Your task to perform on an android device: Go to wifi settings Image 0: 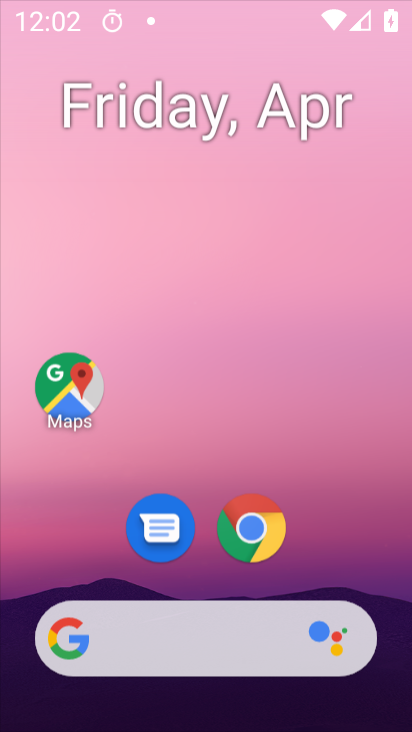
Step 0: click (335, 307)
Your task to perform on an android device: Go to wifi settings Image 1: 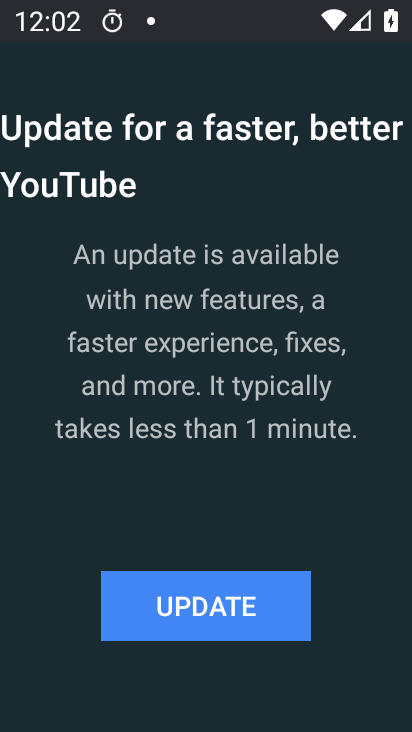
Step 1: press home button
Your task to perform on an android device: Go to wifi settings Image 2: 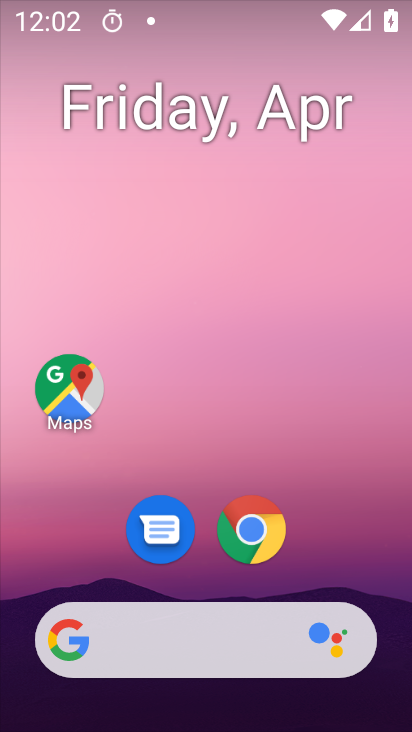
Step 2: drag from (205, 563) to (265, 80)
Your task to perform on an android device: Go to wifi settings Image 3: 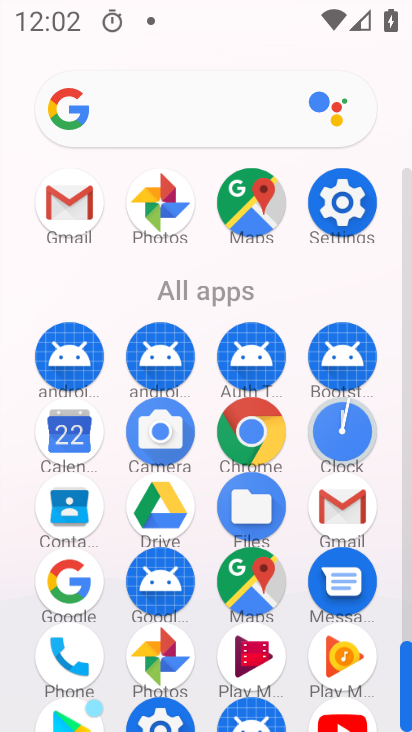
Step 3: click (367, 238)
Your task to perform on an android device: Go to wifi settings Image 4: 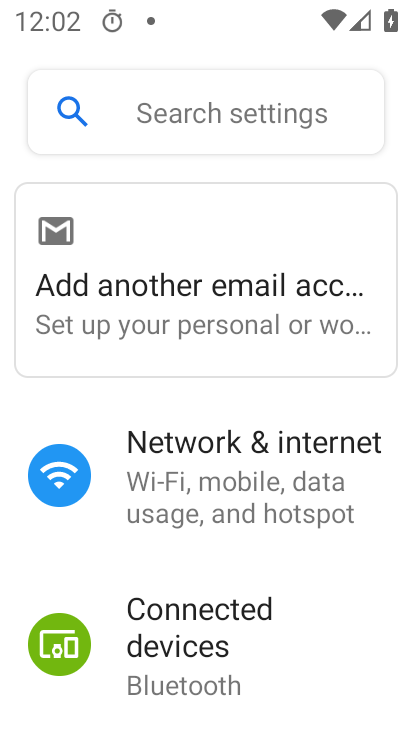
Step 4: click (229, 459)
Your task to perform on an android device: Go to wifi settings Image 5: 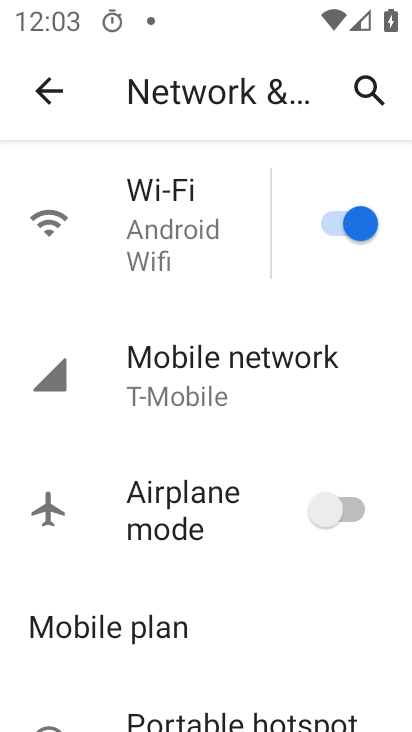
Step 5: click (144, 204)
Your task to perform on an android device: Go to wifi settings Image 6: 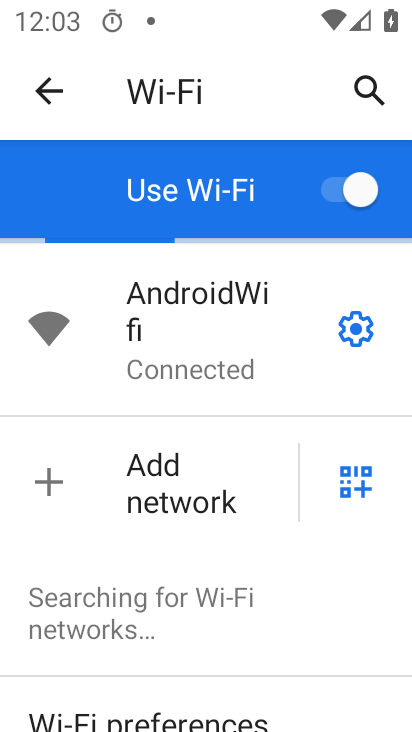
Step 6: task complete